Your task to perform on an android device: What is the recent news? Image 0: 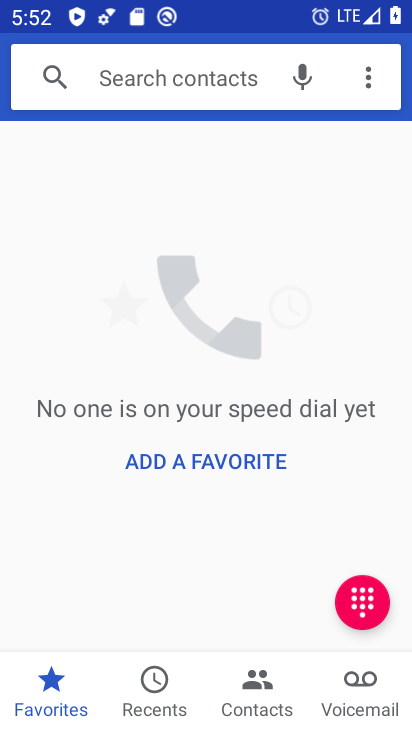
Step 0: press home button
Your task to perform on an android device: What is the recent news? Image 1: 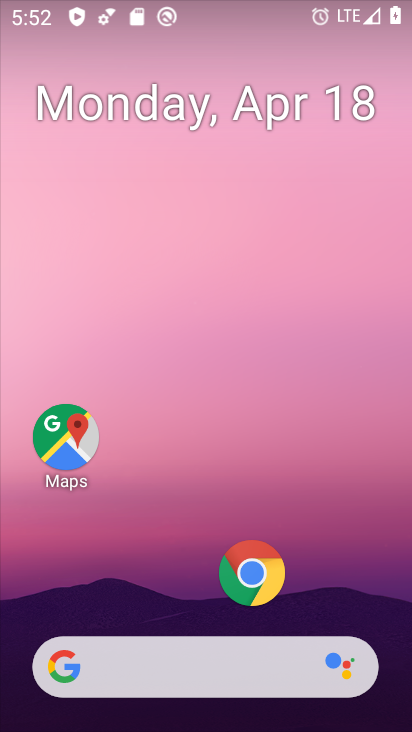
Step 1: click (216, 666)
Your task to perform on an android device: What is the recent news? Image 2: 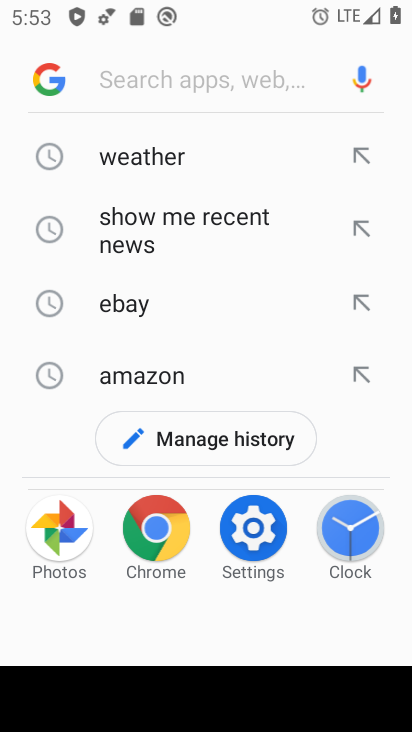
Step 2: type "recent news"
Your task to perform on an android device: What is the recent news? Image 3: 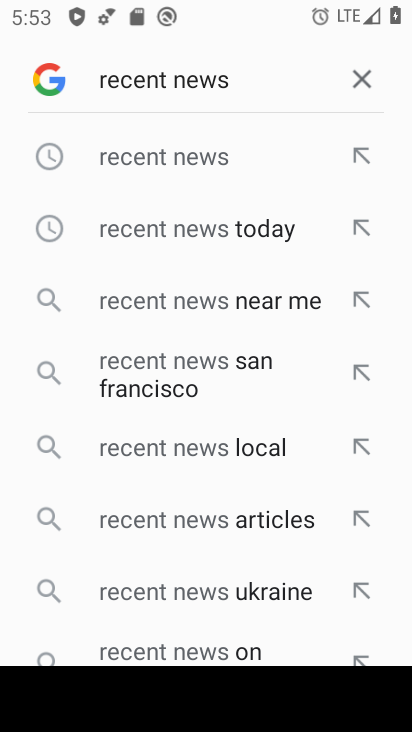
Step 3: click (182, 146)
Your task to perform on an android device: What is the recent news? Image 4: 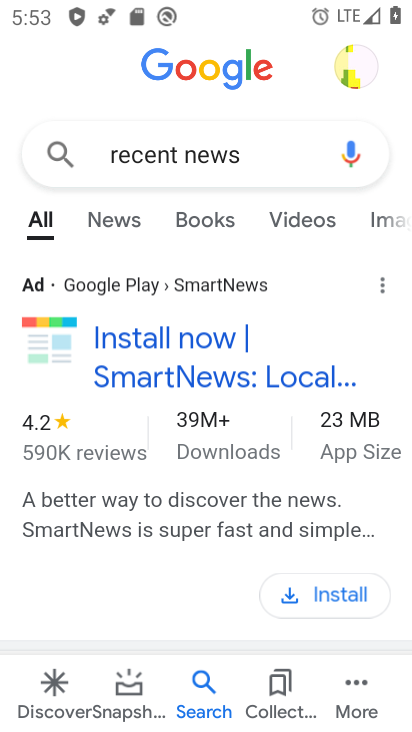
Step 4: task complete